Your task to perform on an android device: Search for Italian restaurants on Maps Image 0: 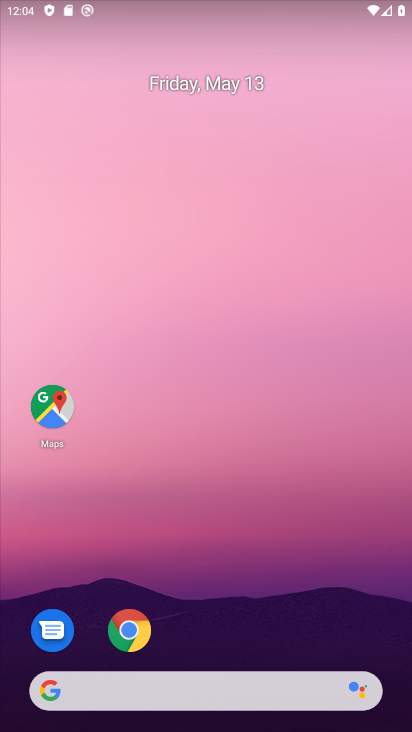
Step 0: drag from (279, 602) to (293, 196)
Your task to perform on an android device: Search for Italian restaurants on Maps Image 1: 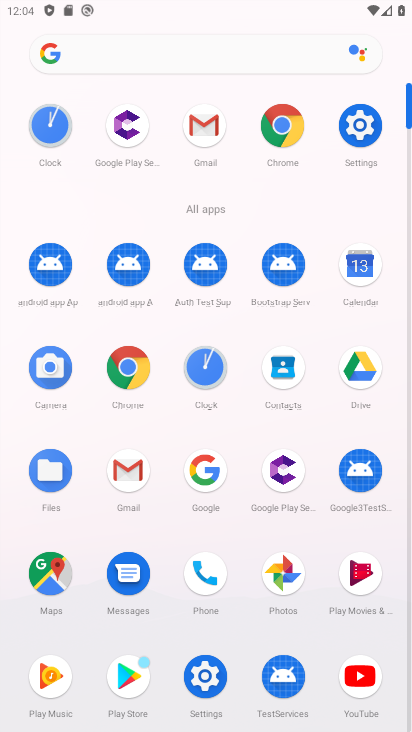
Step 1: click (47, 571)
Your task to perform on an android device: Search for Italian restaurants on Maps Image 2: 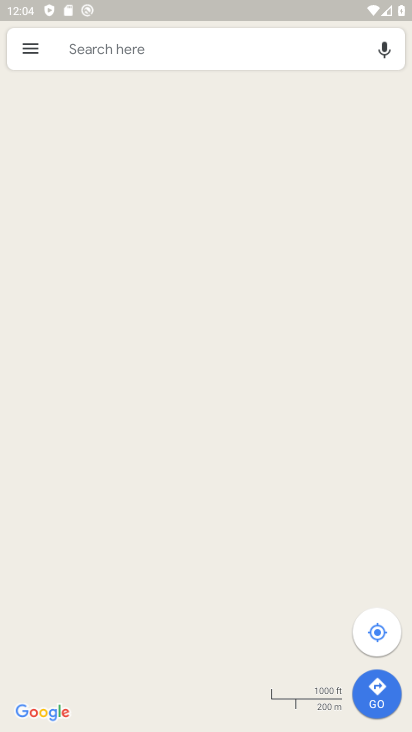
Step 2: click (200, 54)
Your task to perform on an android device: Search for Italian restaurants on Maps Image 3: 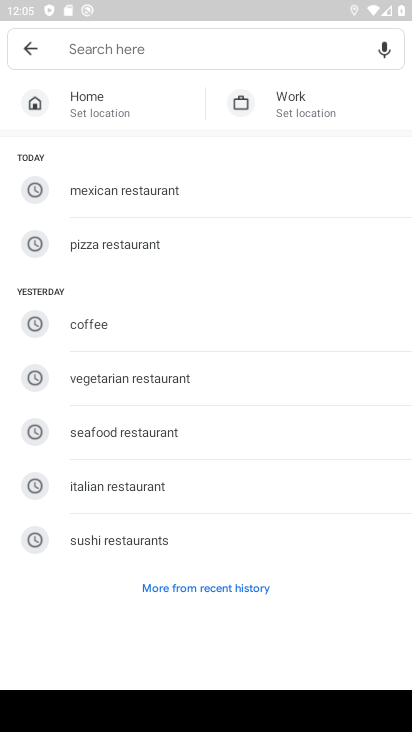
Step 3: type "italian restaurants"
Your task to perform on an android device: Search for Italian restaurants on Maps Image 4: 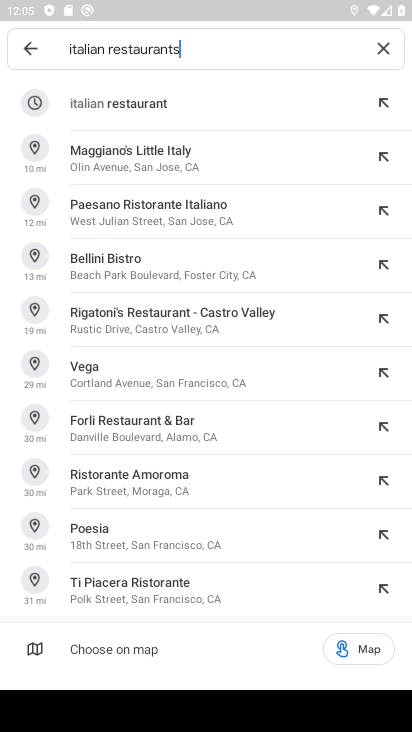
Step 4: click (90, 108)
Your task to perform on an android device: Search for Italian restaurants on Maps Image 5: 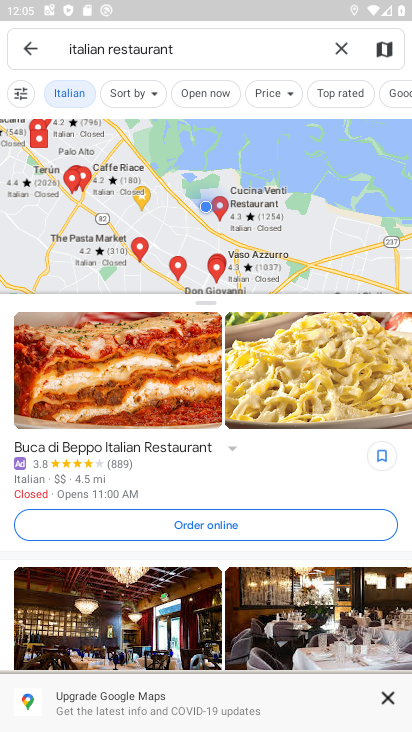
Step 5: task complete